Your task to perform on an android device: set an alarm Image 0: 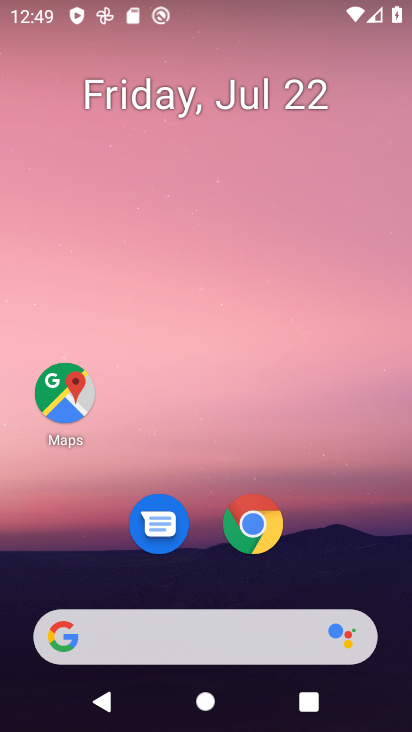
Step 0: drag from (174, 598) to (410, 143)
Your task to perform on an android device: set an alarm Image 1: 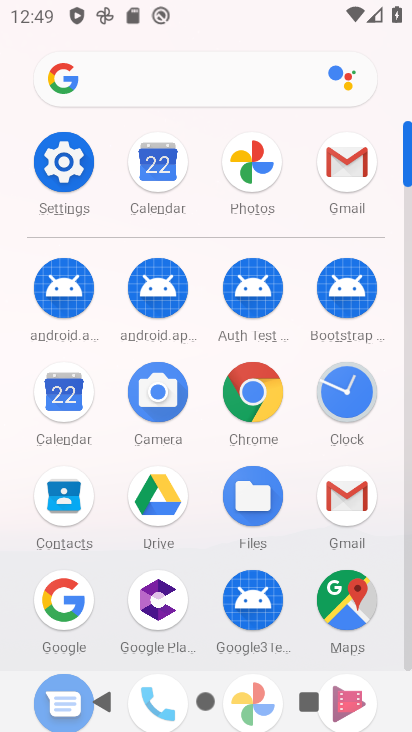
Step 1: click (345, 396)
Your task to perform on an android device: set an alarm Image 2: 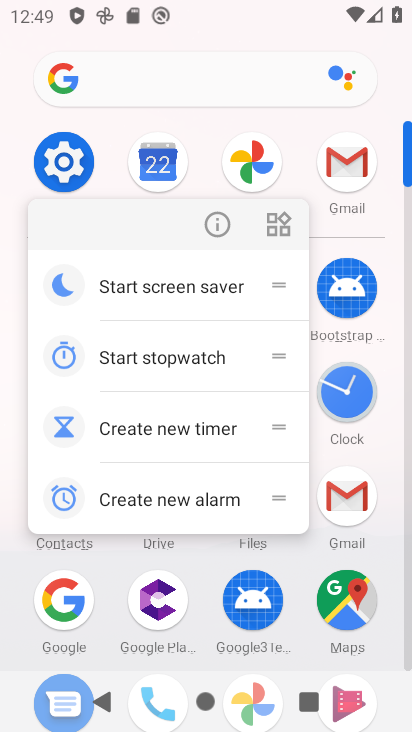
Step 2: click (346, 398)
Your task to perform on an android device: set an alarm Image 3: 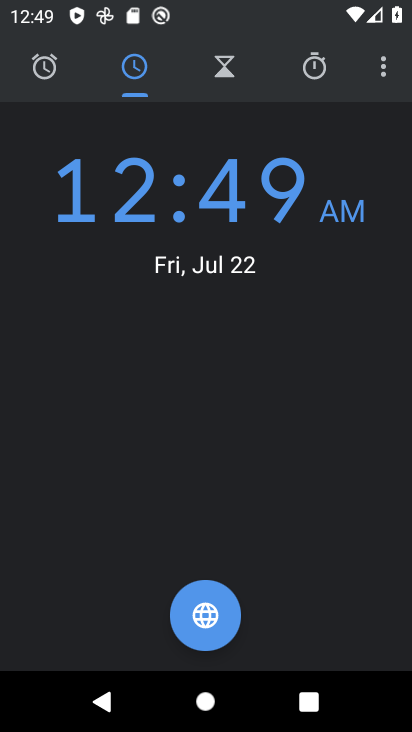
Step 3: click (40, 62)
Your task to perform on an android device: set an alarm Image 4: 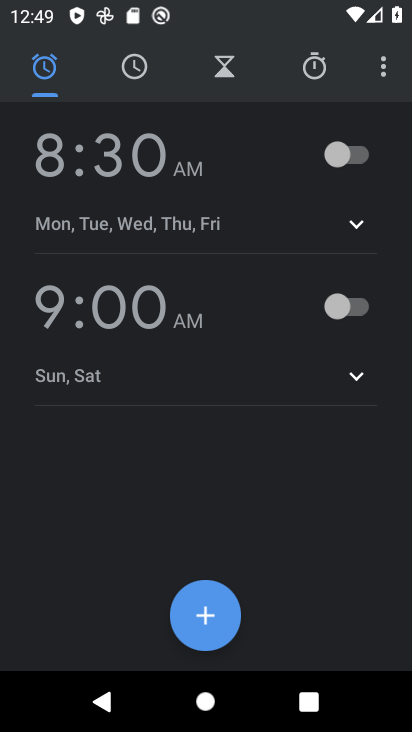
Step 4: click (359, 158)
Your task to perform on an android device: set an alarm Image 5: 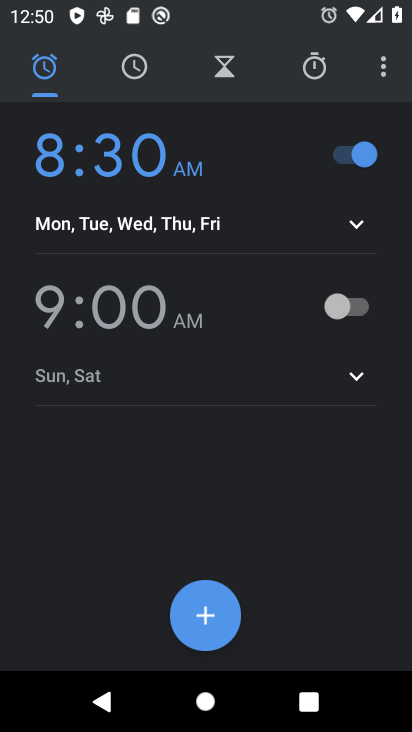
Step 5: task complete